Your task to perform on an android device: Go to Maps Image 0: 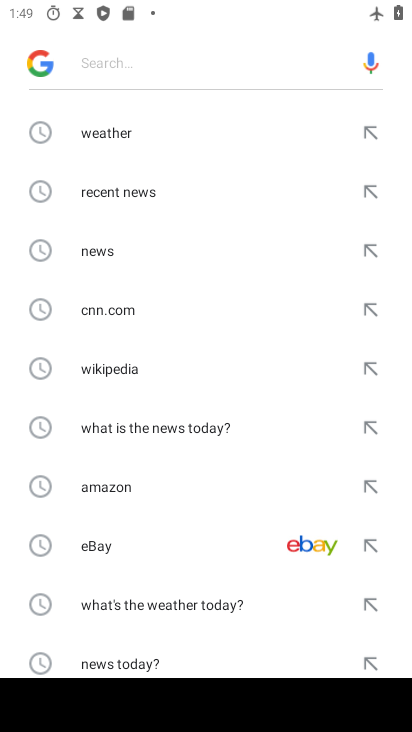
Step 0: press home button
Your task to perform on an android device: Go to Maps Image 1: 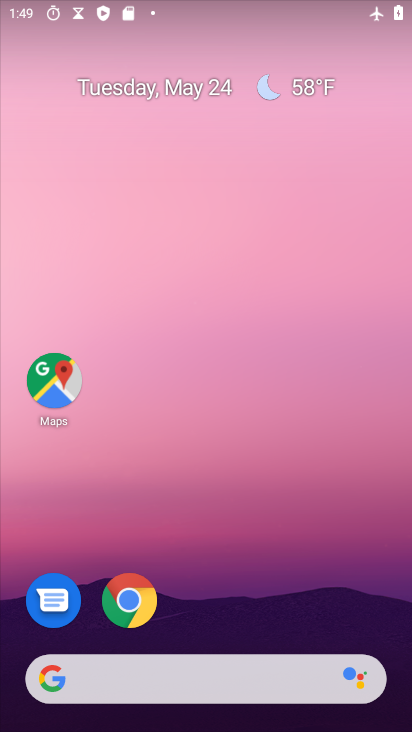
Step 1: click (63, 384)
Your task to perform on an android device: Go to Maps Image 2: 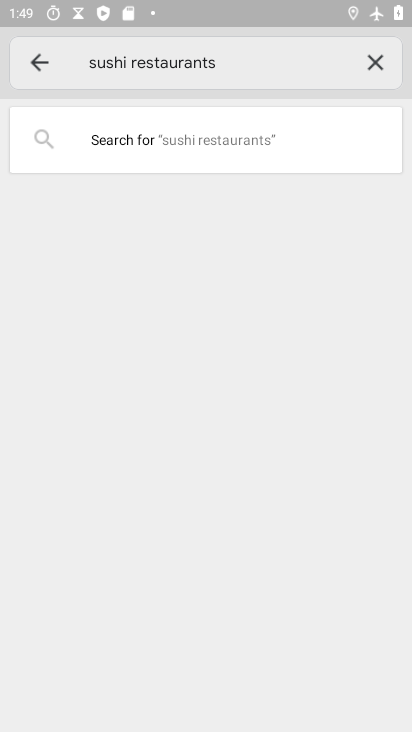
Step 2: task complete